Your task to perform on an android device: Open calendar and show me the fourth week of next month Image 0: 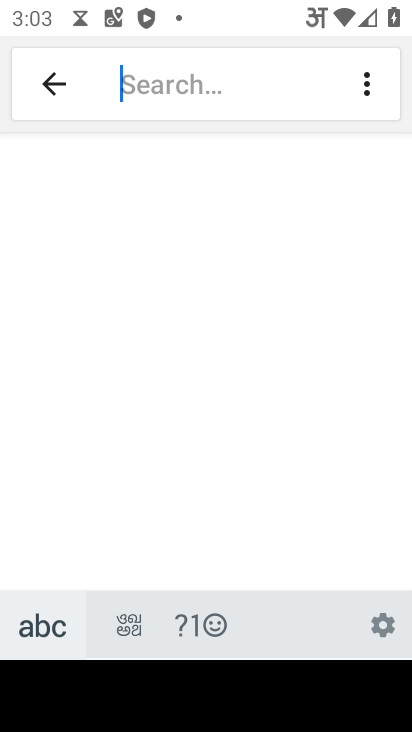
Step 0: press back button
Your task to perform on an android device: Open calendar and show me the fourth week of next month Image 1: 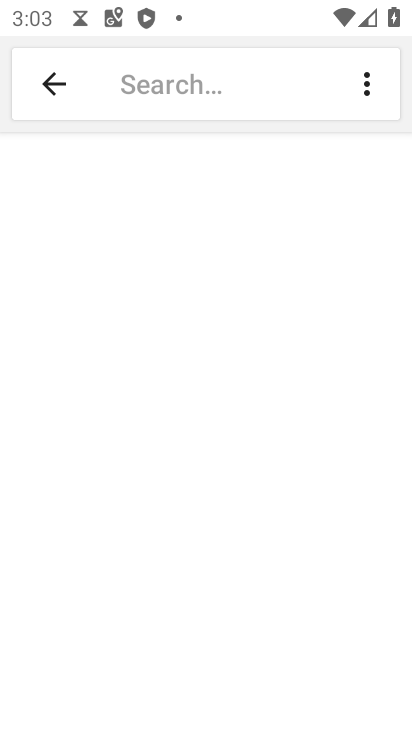
Step 1: click (45, 79)
Your task to perform on an android device: Open calendar and show me the fourth week of next month Image 2: 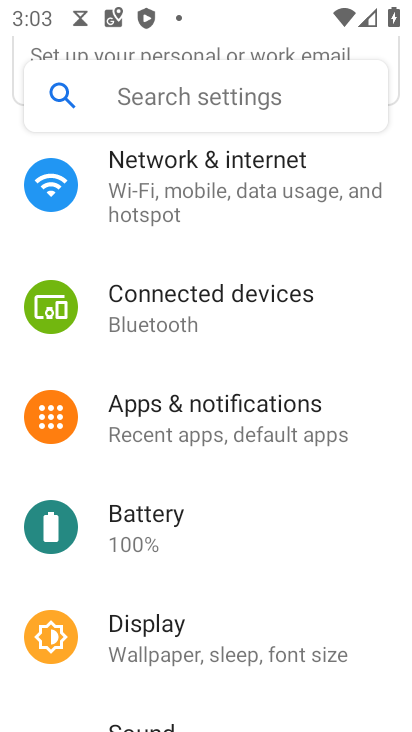
Step 2: press home button
Your task to perform on an android device: Open calendar and show me the fourth week of next month Image 3: 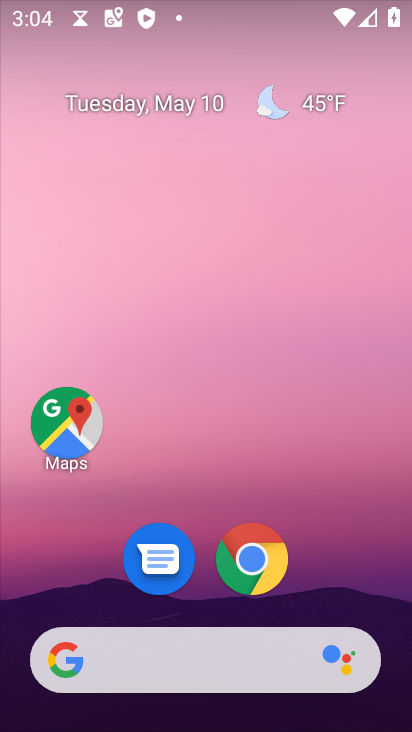
Step 3: drag from (346, 585) to (140, 0)
Your task to perform on an android device: Open calendar and show me the fourth week of next month Image 4: 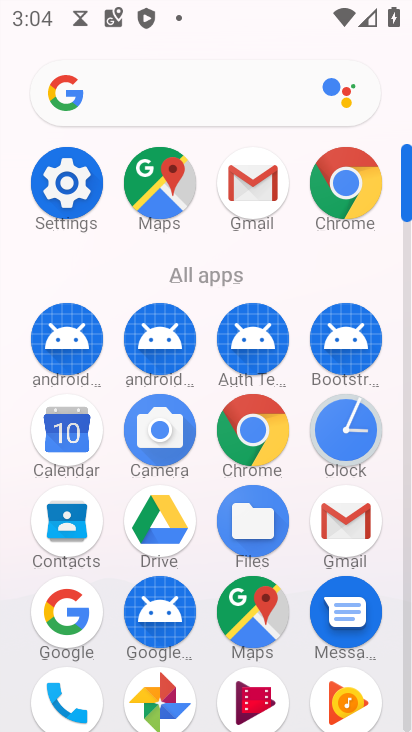
Step 4: click (60, 421)
Your task to perform on an android device: Open calendar and show me the fourth week of next month Image 5: 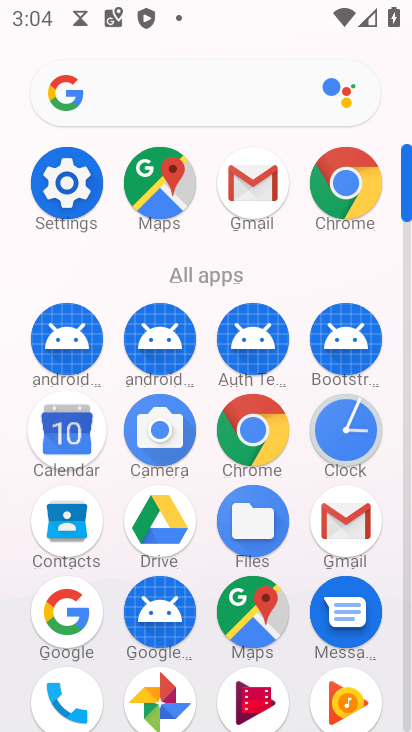
Step 5: click (64, 417)
Your task to perform on an android device: Open calendar and show me the fourth week of next month Image 6: 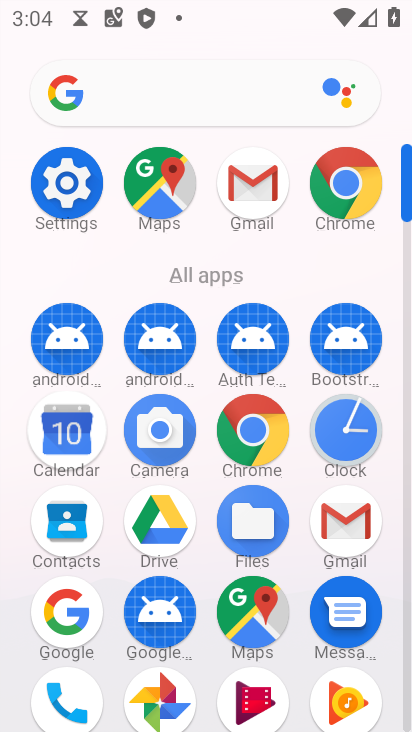
Step 6: click (67, 422)
Your task to perform on an android device: Open calendar and show me the fourth week of next month Image 7: 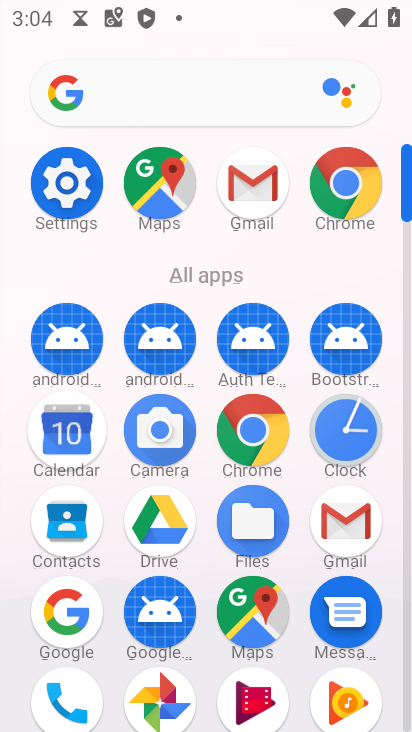
Step 7: click (64, 435)
Your task to perform on an android device: Open calendar and show me the fourth week of next month Image 8: 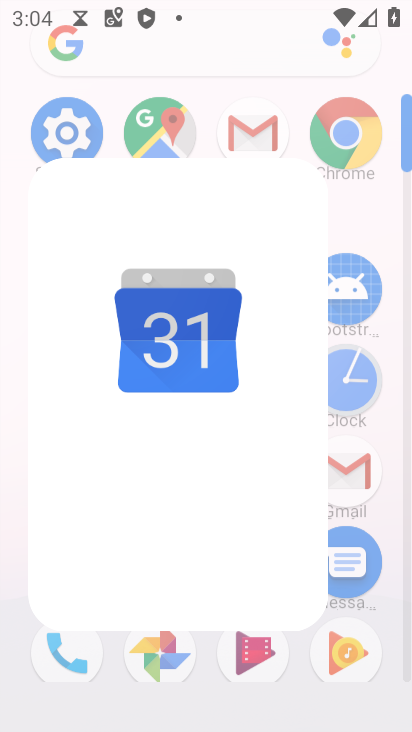
Step 8: click (64, 435)
Your task to perform on an android device: Open calendar and show me the fourth week of next month Image 9: 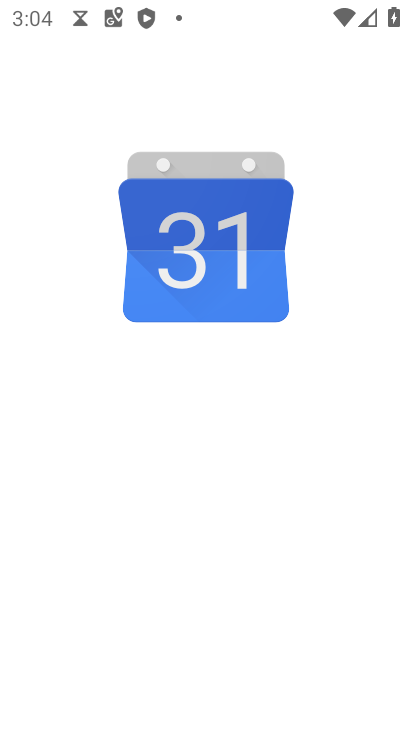
Step 9: click (62, 436)
Your task to perform on an android device: Open calendar and show me the fourth week of next month Image 10: 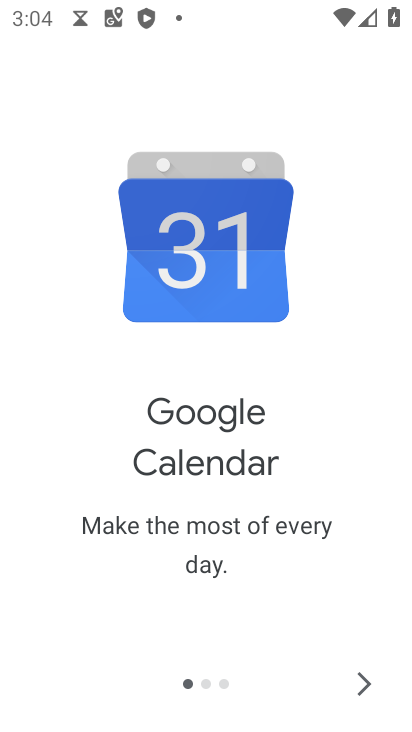
Step 10: click (376, 680)
Your task to perform on an android device: Open calendar and show me the fourth week of next month Image 11: 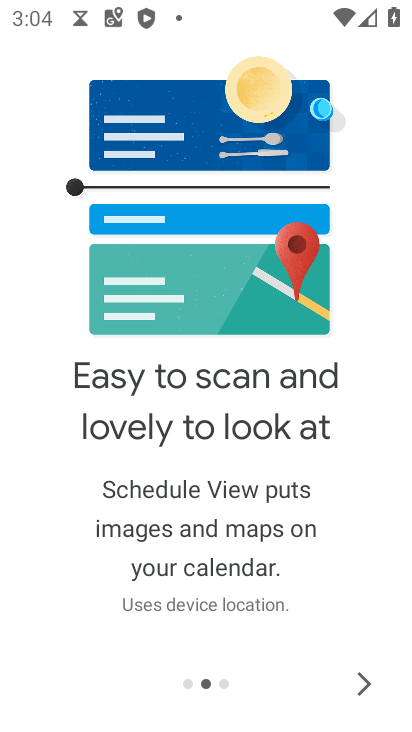
Step 11: click (362, 685)
Your task to perform on an android device: Open calendar and show me the fourth week of next month Image 12: 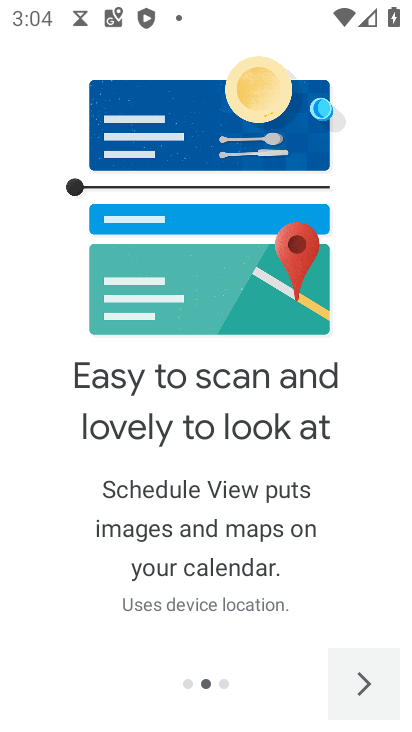
Step 12: click (362, 685)
Your task to perform on an android device: Open calendar and show me the fourth week of next month Image 13: 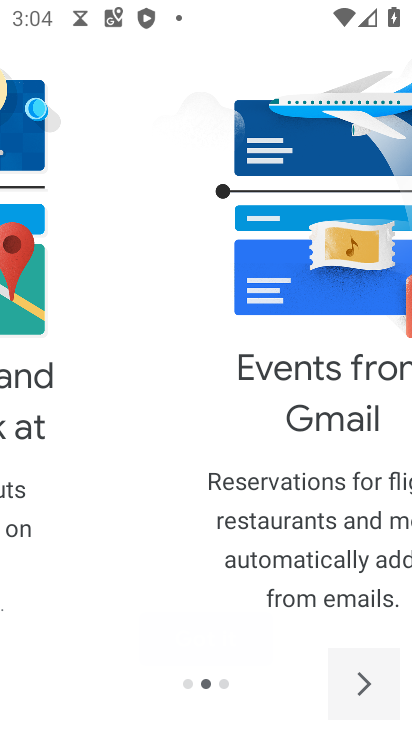
Step 13: click (362, 685)
Your task to perform on an android device: Open calendar and show me the fourth week of next month Image 14: 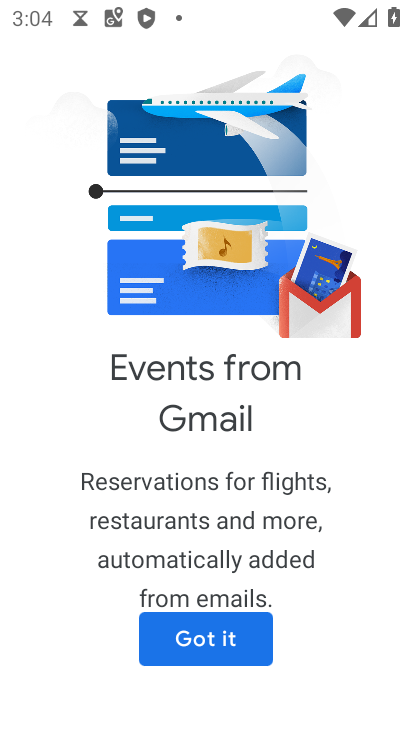
Step 14: click (362, 685)
Your task to perform on an android device: Open calendar and show me the fourth week of next month Image 15: 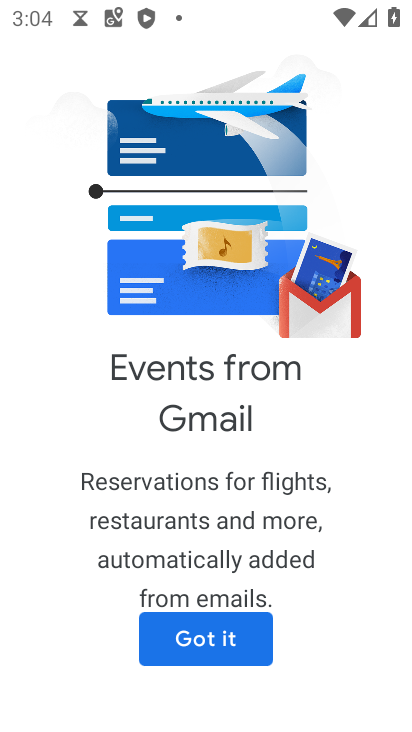
Step 15: click (364, 685)
Your task to perform on an android device: Open calendar and show me the fourth week of next month Image 16: 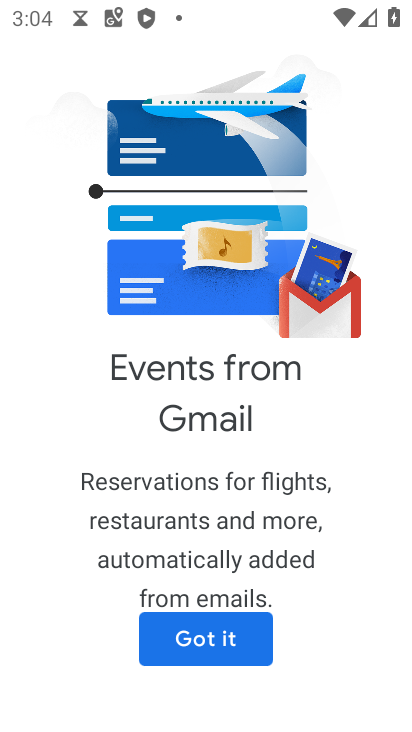
Step 16: click (185, 631)
Your task to perform on an android device: Open calendar and show me the fourth week of next month Image 17: 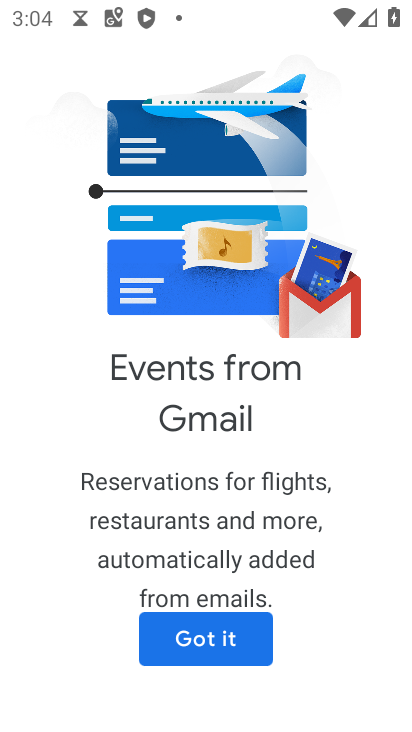
Step 17: click (185, 628)
Your task to perform on an android device: Open calendar and show me the fourth week of next month Image 18: 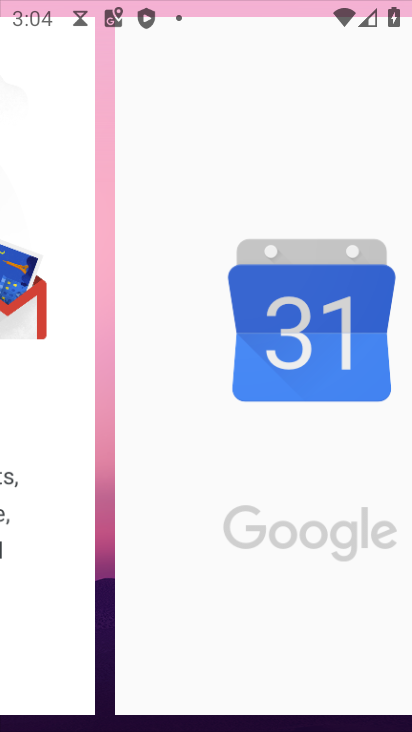
Step 18: click (187, 625)
Your task to perform on an android device: Open calendar and show me the fourth week of next month Image 19: 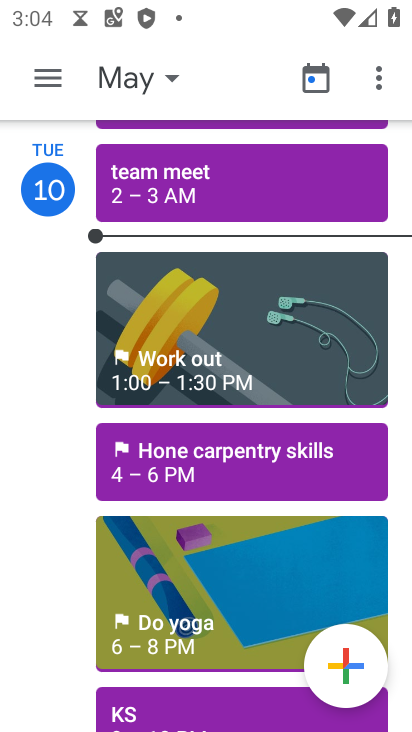
Step 19: drag from (172, 75) to (171, 484)
Your task to perform on an android device: Open calendar and show me the fourth week of next month Image 20: 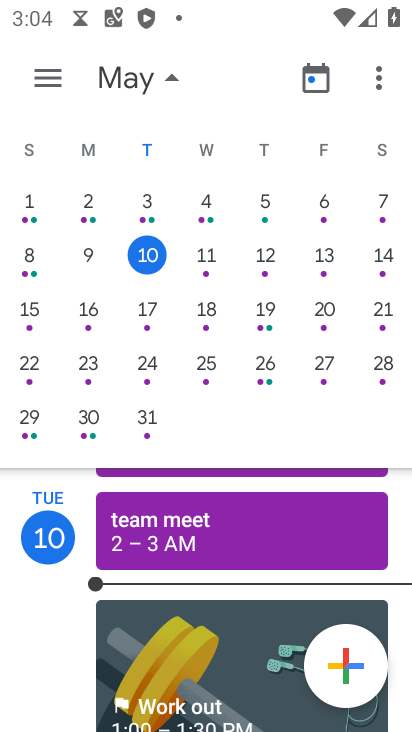
Step 20: drag from (274, 279) to (39, 298)
Your task to perform on an android device: Open calendar and show me the fourth week of next month Image 21: 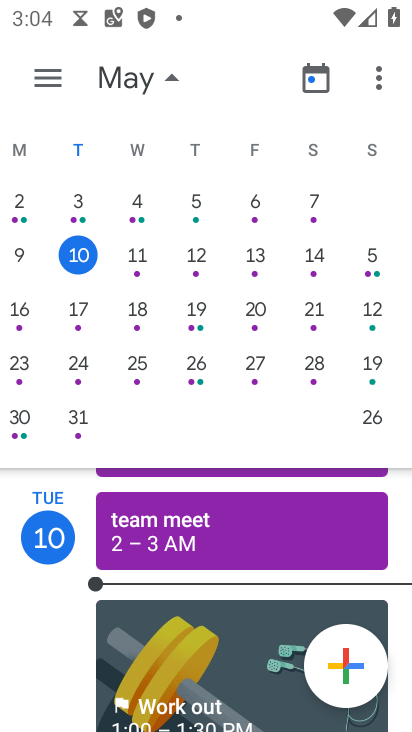
Step 21: drag from (253, 318) to (51, 322)
Your task to perform on an android device: Open calendar and show me the fourth week of next month Image 22: 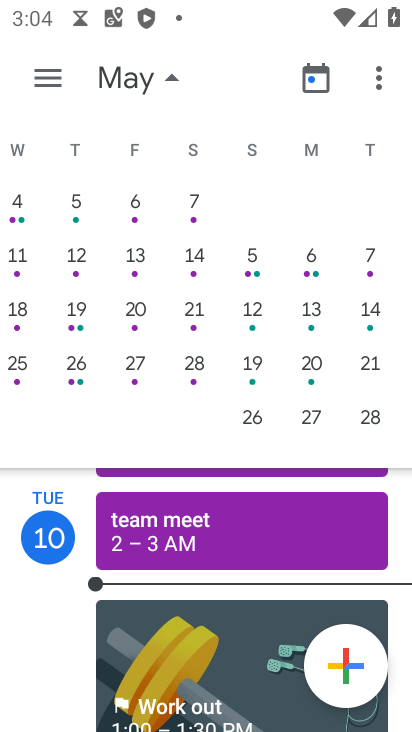
Step 22: drag from (273, 313) to (8, 320)
Your task to perform on an android device: Open calendar and show me the fourth week of next month Image 23: 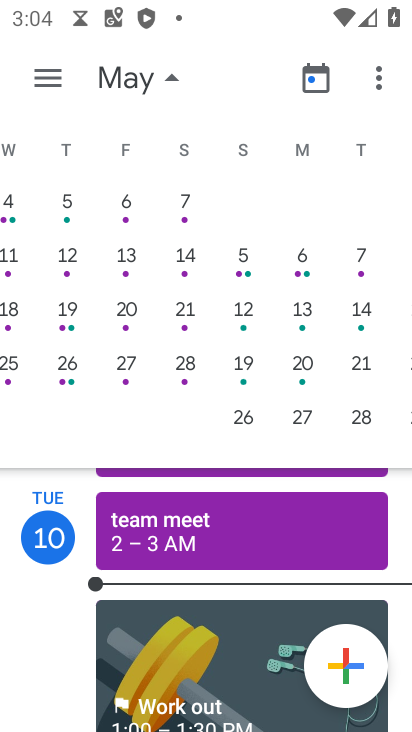
Step 23: drag from (202, 316) to (52, 270)
Your task to perform on an android device: Open calendar and show me the fourth week of next month Image 24: 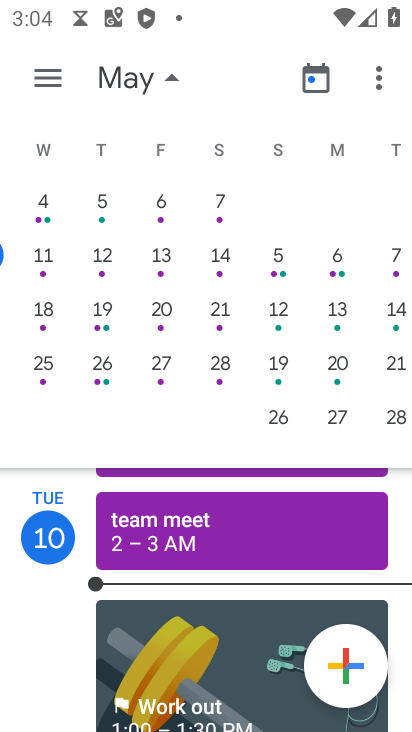
Step 24: click (19, 292)
Your task to perform on an android device: Open calendar and show me the fourth week of next month Image 25: 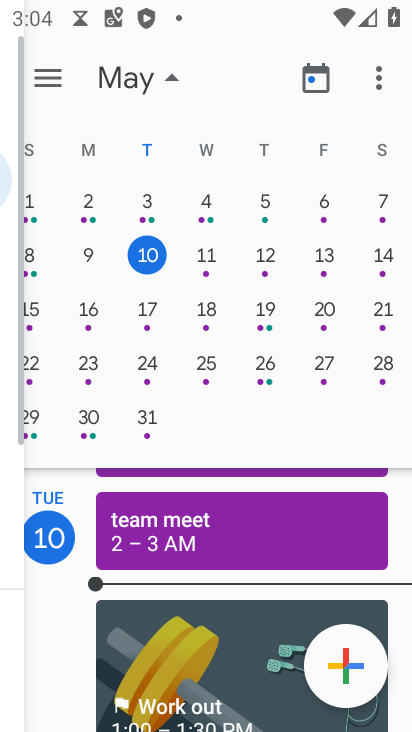
Step 25: drag from (282, 316) to (61, 266)
Your task to perform on an android device: Open calendar and show me the fourth week of next month Image 26: 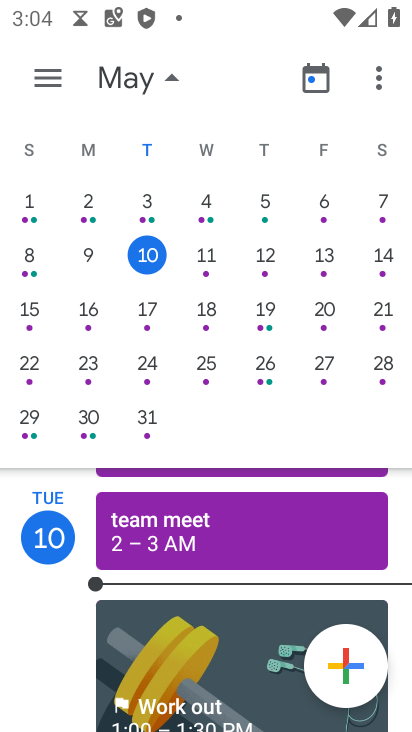
Step 26: drag from (227, 266) to (36, 349)
Your task to perform on an android device: Open calendar and show me the fourth week of next month Image 27: 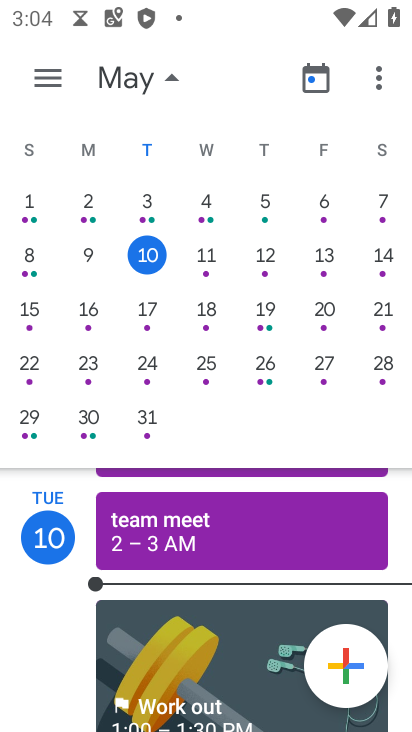
Step 27: drag from (253, 286) to (25, 318)
Your task to perform on an android device: Open calendar and show me the fourth week of next month Image 28: 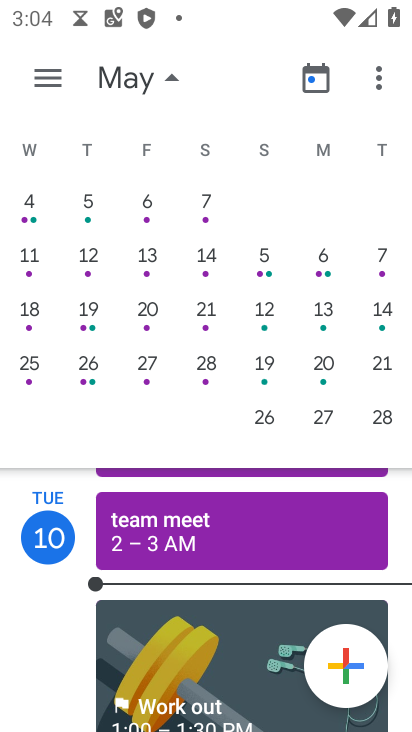
Step 28: drag from (342, 302) to (100, 318)
Your task to perform on an android device: Open calendar and show me the fourth week of next month Image 29: 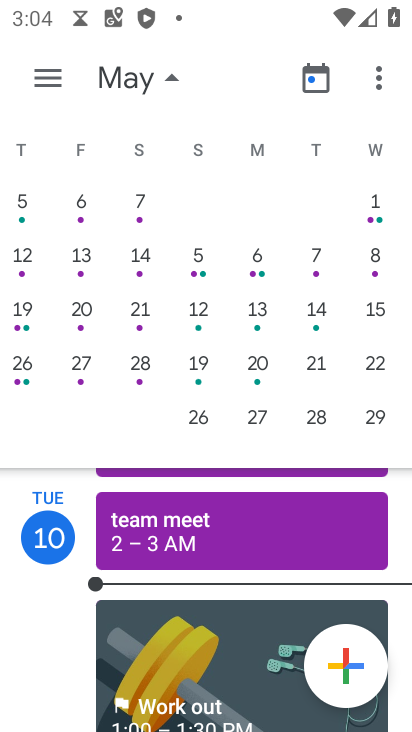
Step 29: drag from (182, 307) to (54, 346)
Your task to perform on an android device: Open calendar and show me the fourth week of next month Image 30: 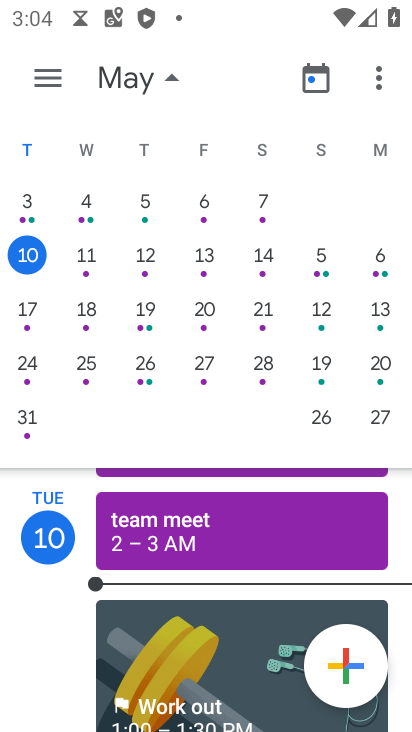
Step 30: drag from (314, 288) to (38, 324)
Your task to perform on an android device: Open calendar and show me the fourth week of next month Image 31: 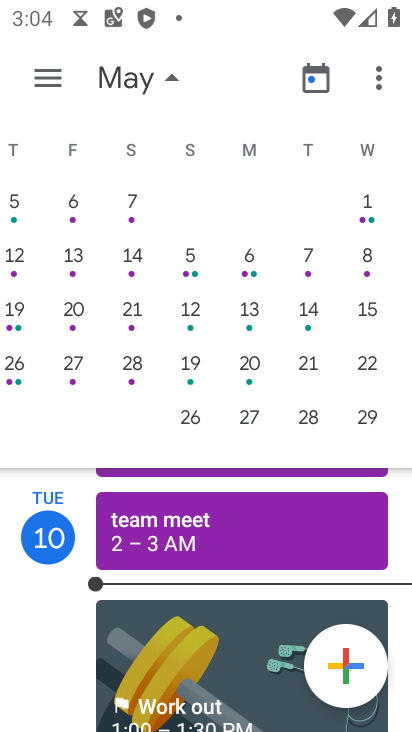
Step 31: drag from (271, 271) to (24, 322)
Your task to perform on an android device: Open calendar and show me the fourth week of next month Image 32: 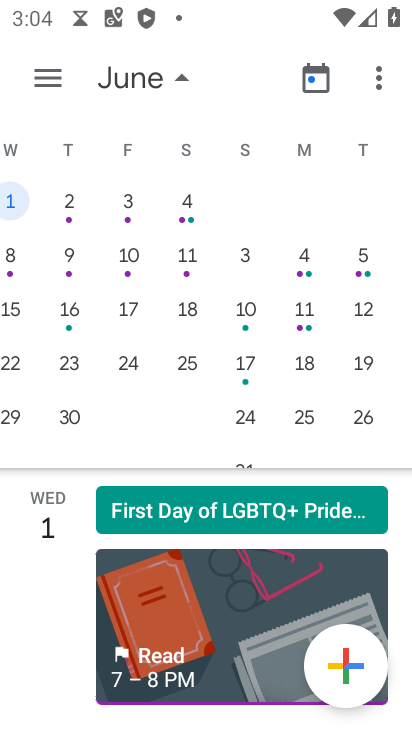
Step 32: drag from (312, 359) to (37, 319)
Your task to perform on an android device: Open calendar and show me the fourth week of next month Image 33: 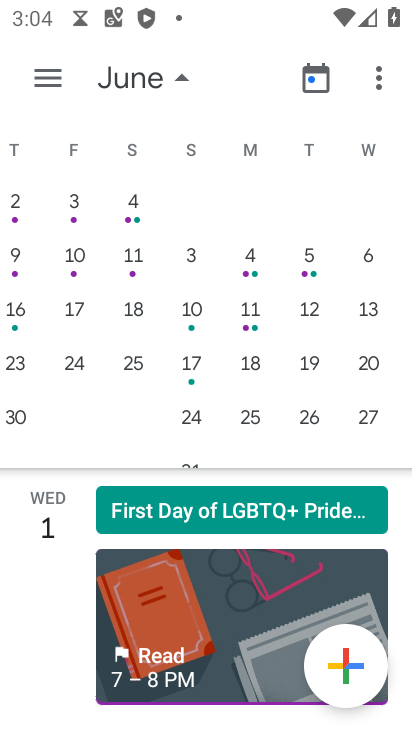
Step 33: drag from (164, 344) to (55, 354)
Your task to perform on an android device: Open calendar and show me the fourth week of next month Image 34: 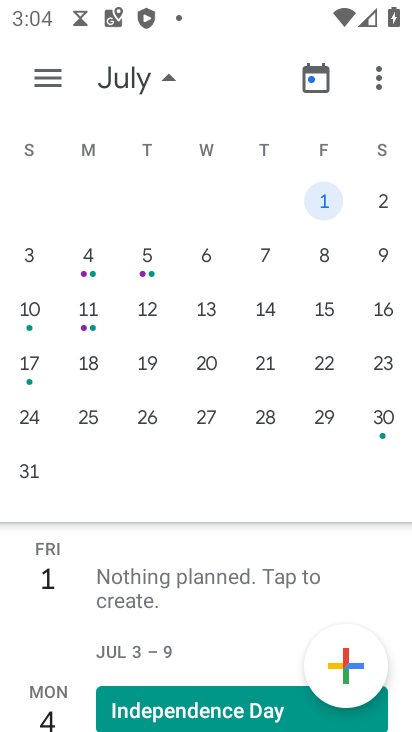
Step 34: click (32, 353)
Your task to perform on an android device: Open calendar and show me the fourth week of next month Image 35: 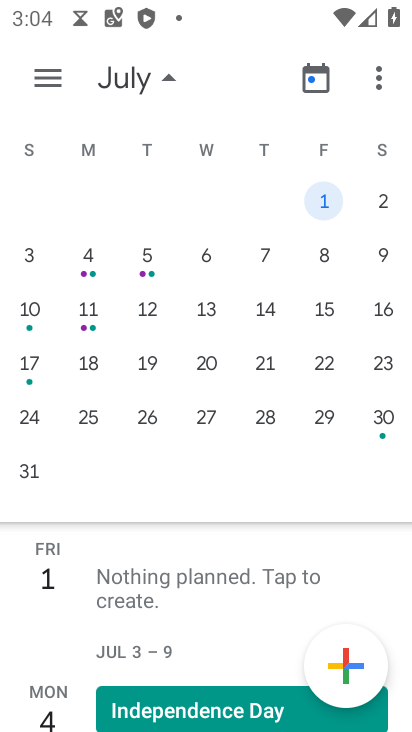
Step 35: click (31, 352)
Your task to perform on an android device: Open calendar and show me the fourth week of next month Image 36: 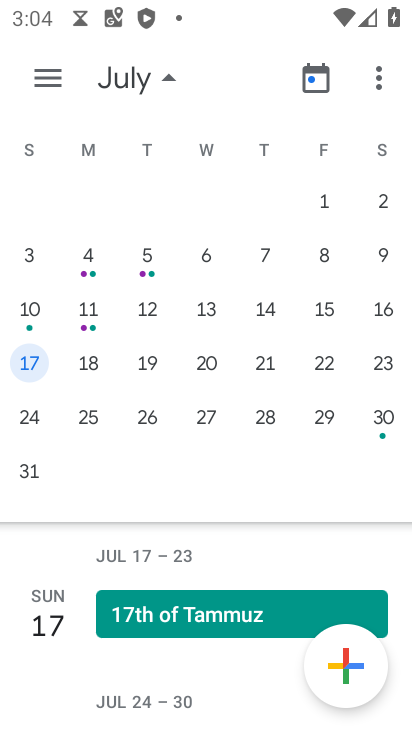
Step 36: click (31, 352)
Your task to perform on an android device: Open calendar and show me the fourth week of next month Image 37: 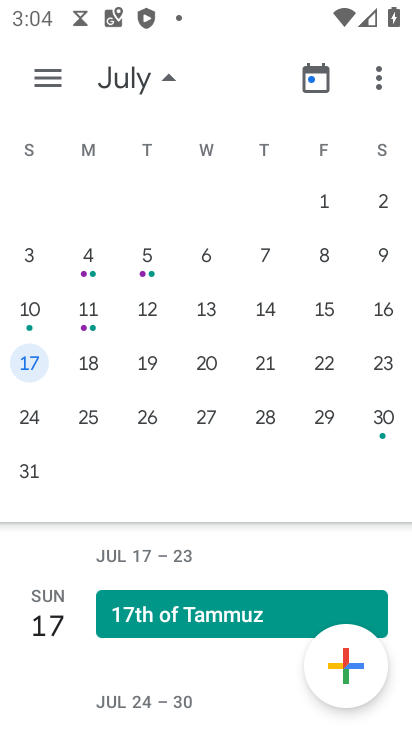
Step 37: click (32, 389)
Your task to perform on an android device: Open calendar and show me the fourth week of next month Image 38: 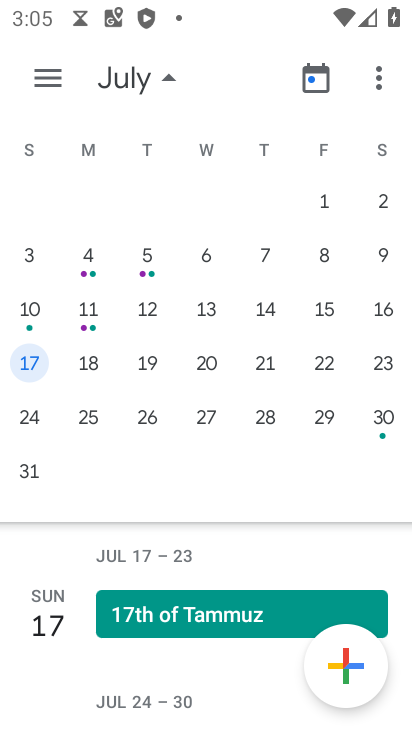
Step 38: click (27, 359)
Your task to perform on an android device: Open calendar and show me the fourth week of next month Image 39: 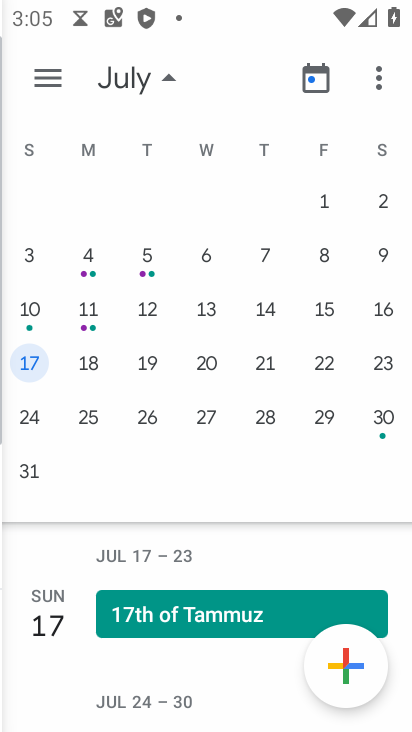
Step 39: click (26, 356)
Your task to perform on an android device: Open calendar and show me the fourth week of next month Image 40: 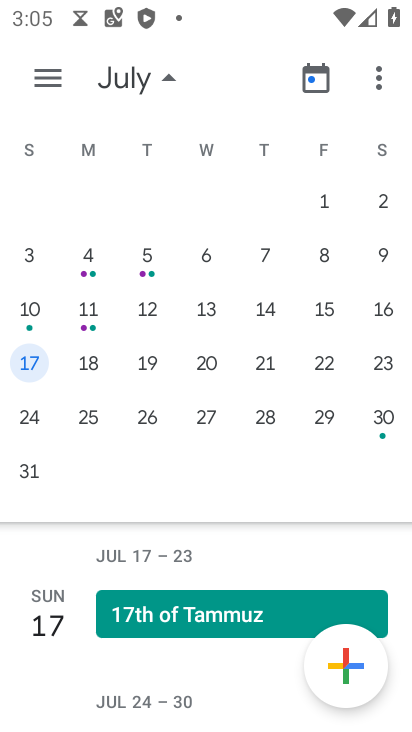
Step 40: click (27, 356)
Your task to perform on an android device: Open calendar and show me the fourth week of next month Image 41: 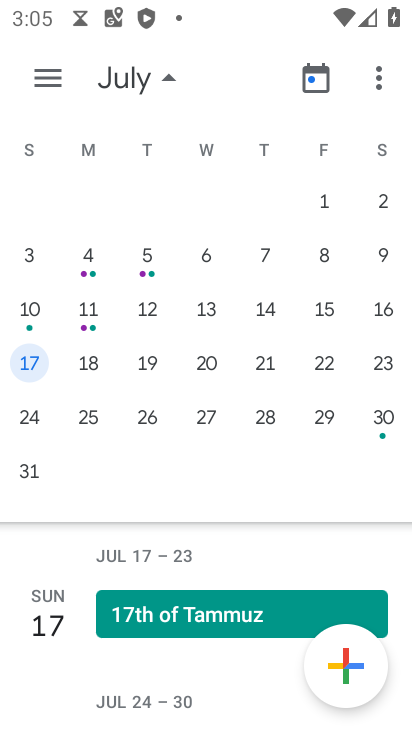
Step 41: click (28, 352)
Your task to perform on an android device: Open calendar and show me the fourth week of next month Image 42: 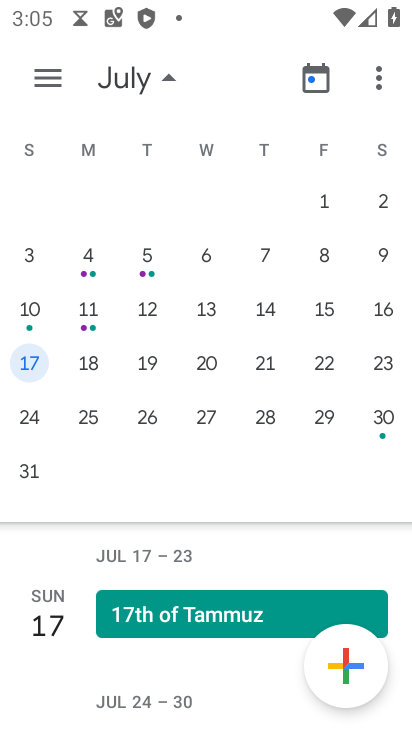
Step 42: click (29, 350)
Your task to perform on an android device: Open calendar and show me the fourth week of next month Image 43: 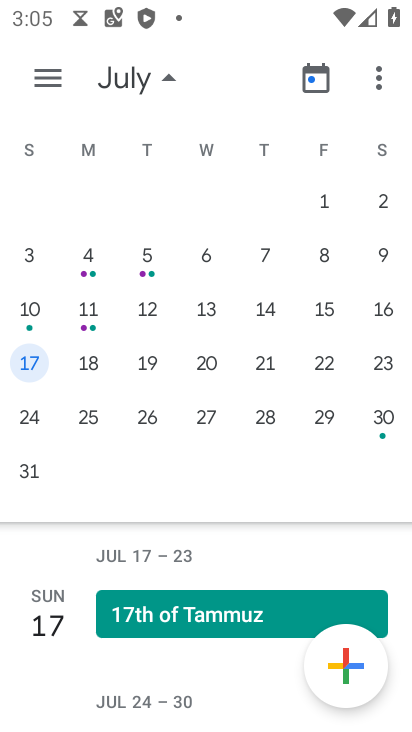
Step 43: task complete